Your task to perform on an android device: Show me popular games on the Play Store Image 0: 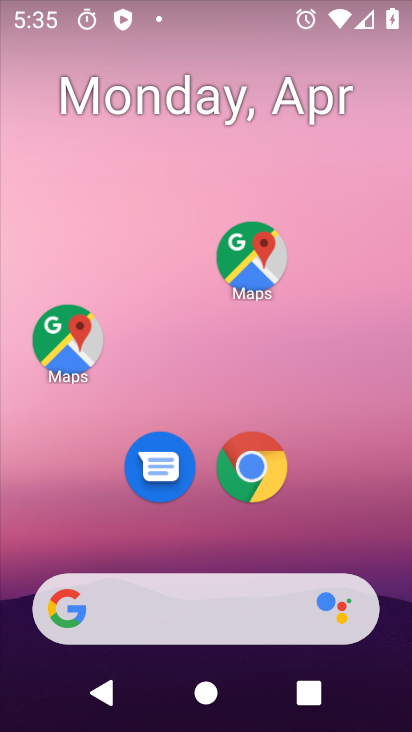
Step 0: drag from (300, 553) to (263, 8)
Your task to perform on an android device: Show me popular games on the Play Store Image 1: 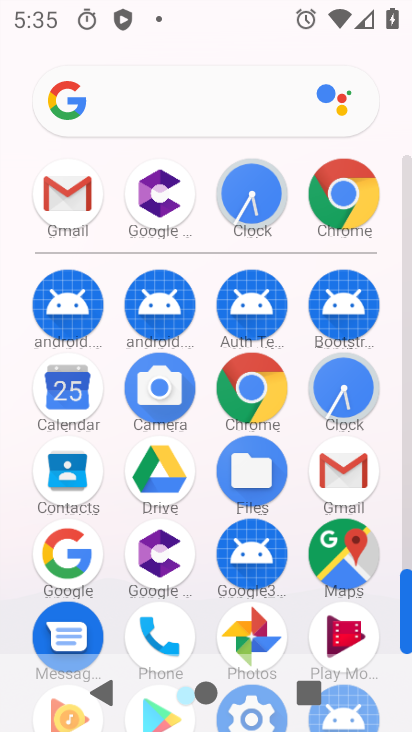
Step 1: drag from (291, 673) to (316, 181)
Your task to perform on an android device: Show me popular games on the Play Store Image 2: 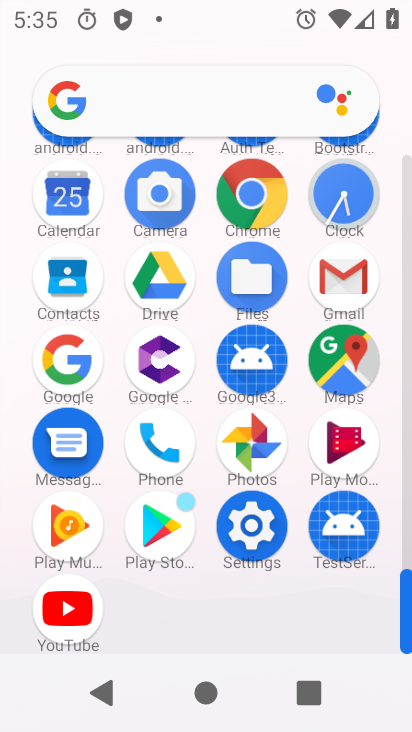
Step 2: click (176, 531)
Your task to perform on an android device: Show me popular games on the Play Store Image 3: 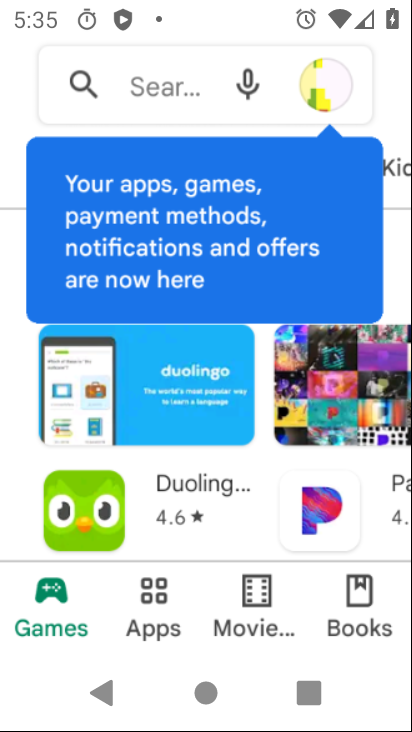
Step 3: drag from (247, 552) to (243, 94)
Your task to perform on an android device: Show me popular games on the Play Store Image 4: 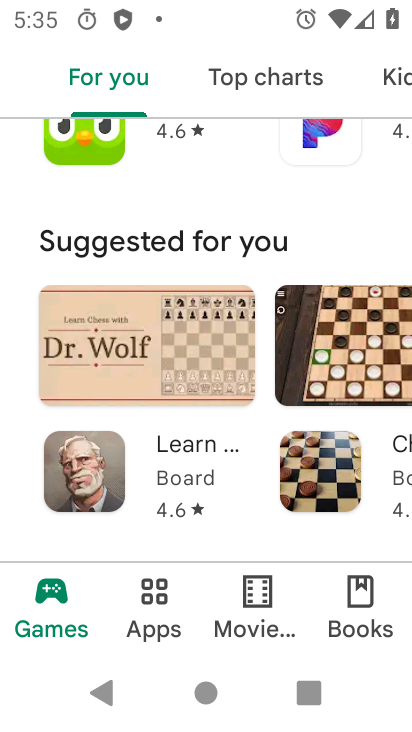
Step 4: drag from (239, 515) to (346, 6)
Your task to perform on an android device: Show me popular games on the Play Store Image 5: 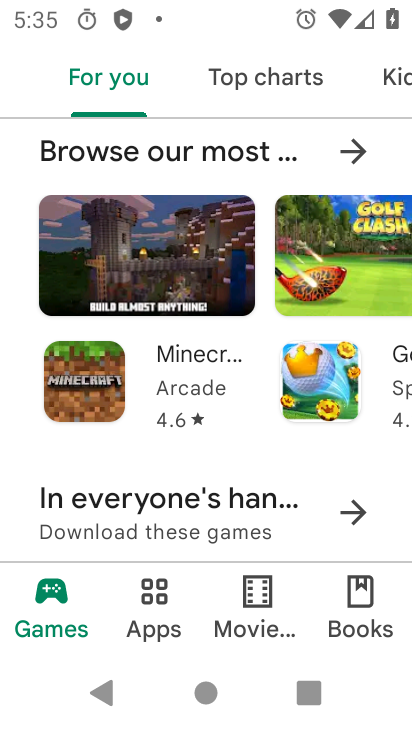
Step 5: drag from (278, 513) to (282, 21)
Your task to perform on an android device: Show me popular games on the Play Store Image 6: 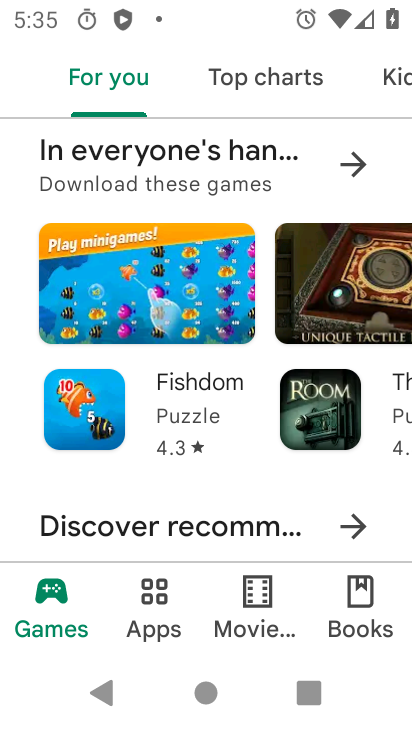
Step 6: drag from (285, 522) to (326, 4)
Your task to perform on an android device: Show me popular games on the Play Store Image 7: 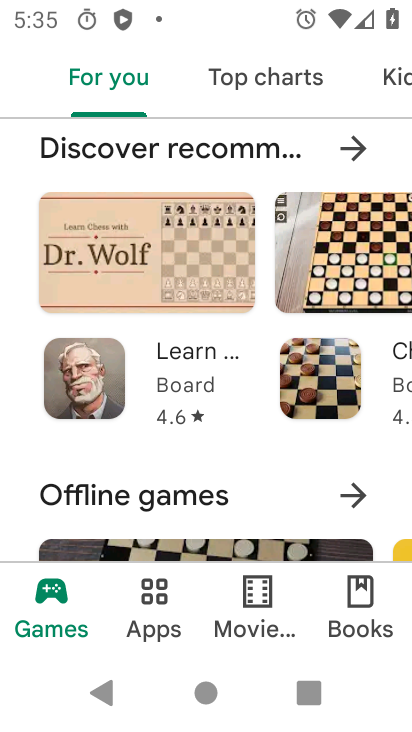
Step 7: click (276, 65)
Your task to perform on an android device: Show me popular games on the Play Store Image 8: 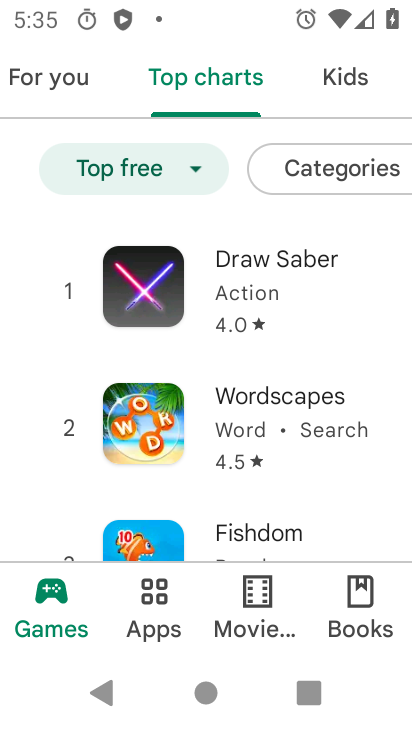
Step 8: click (46, 80)
Your task to perform on an android device: Show me popular games on the Play Store Image 9: 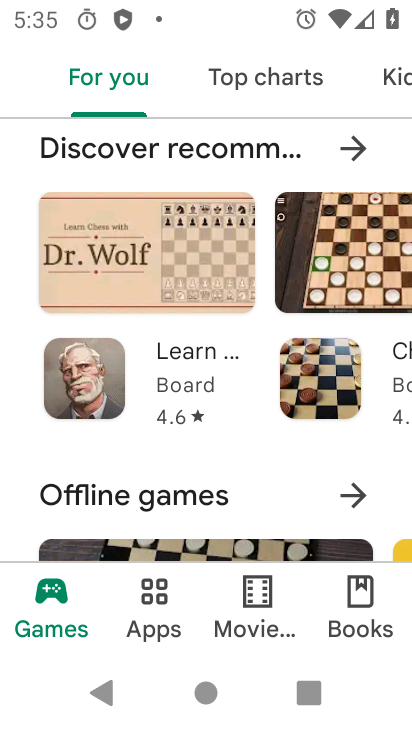
Step 9: task complete